Your task to perform on an android device: Search for Mexican restaurants on Maps Image 0: 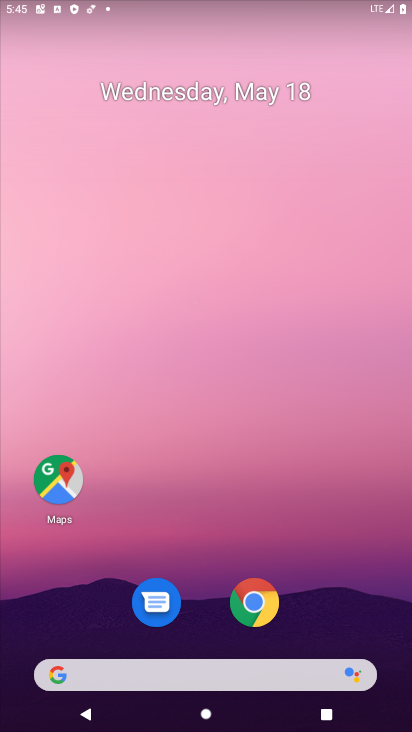
Step 0: drag from (244, 664) to (292, 0)
Your task to perform on an android device: Search for Mexican restaurants on Maps Image 1: 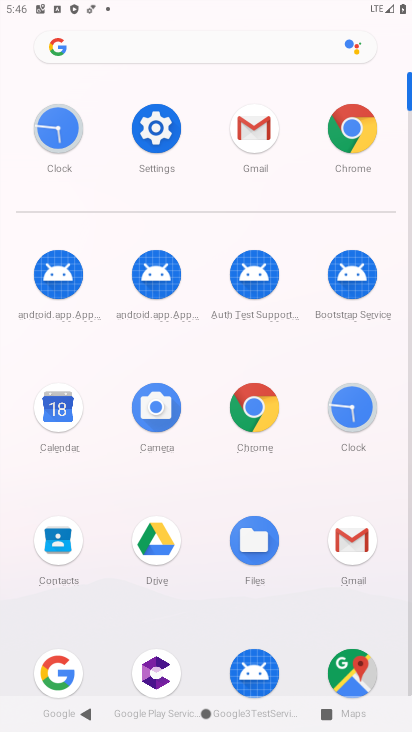
Step 1: click (353, 674)
Your task to perform on an android device: Search for Mexican restaurants on Maps Image 2: 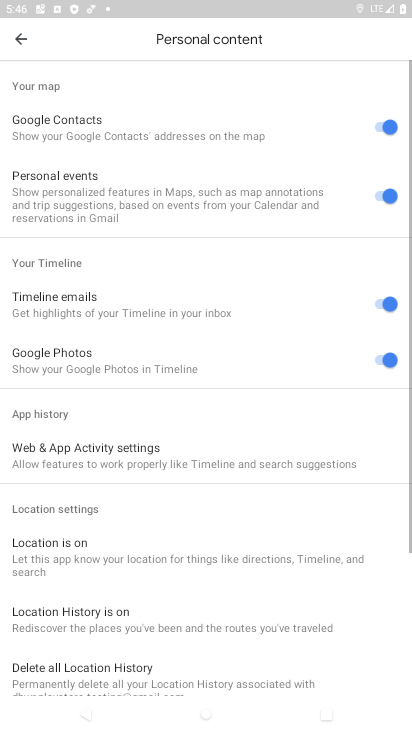
Step 2: press back button
Your task to perform on an android device: Search for Mexican restaurants on Maps Image 3: 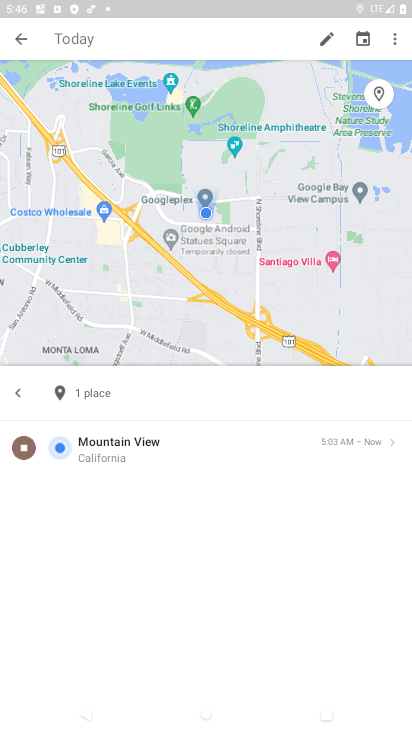
Step 3: press back button
Your task to perform on an android device: Search for Mexican restaurants on Maps Image 4: 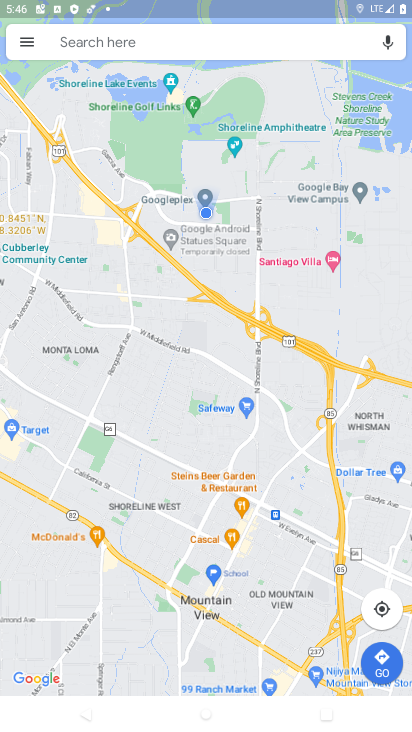
Step 4: click (106, 34)
Your task to perform on an android device: Search for Mexican restaurants on Maps Image 5: 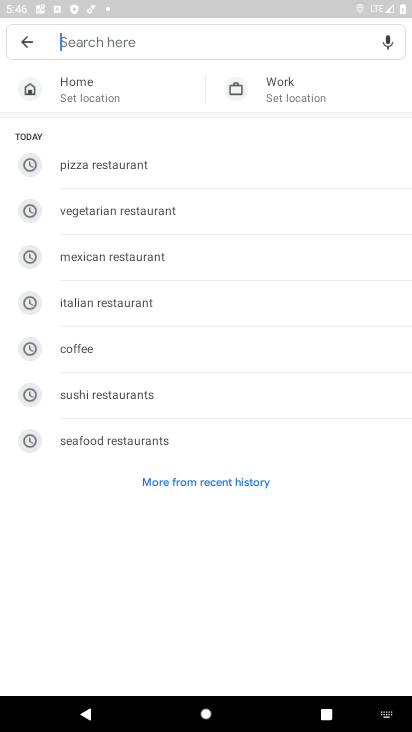
Step 5: click (130, 253)
Your task to perform on an android device: Search for Mexican restaurants on Maps Image 6: 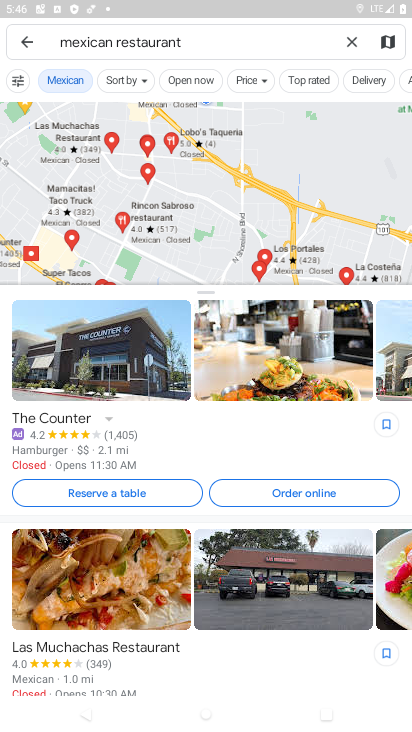
Step 6: task complete